Your task to perform on an android device: Add "razer naga" to the cart on ebay, then select checkout. Image 0: 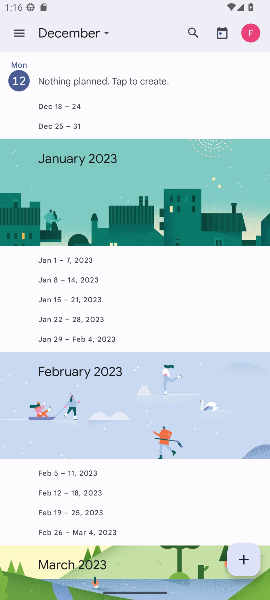
Step 0: press home button
Your task to perform on an android device: Add "razer naga" to the cart on ebay, then select checkout. Image 1: 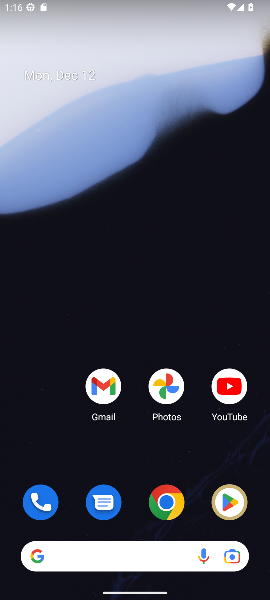
Step 1: click (172, 507)
Your task to perform on an android device: Add "razer naga" to the cart on ebay, then select checkout. Image 2: 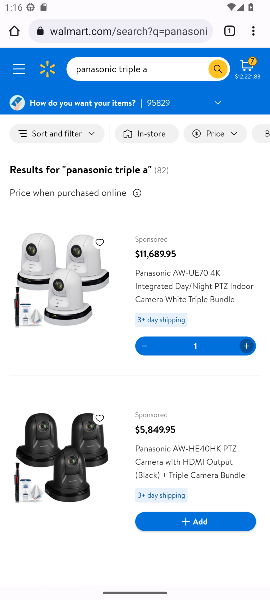
Step 2: click (150, 28)
Your task to perform on an android device: Add "razer naga" to the cart on ebay, then select checkout. Image 3: 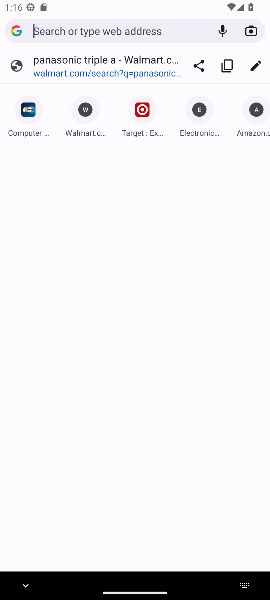
Step 3: type "ebay"
Your task to perform on an android device: Add "razer naga" to the cart on ebay, then select checkout. Image 4: 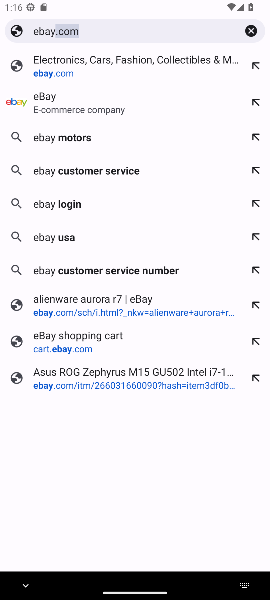
Step 4: click (79, 66)
Your task to perform on an android device: Add "razer naga" to the cart on ebay, then select checkout. Image 5: 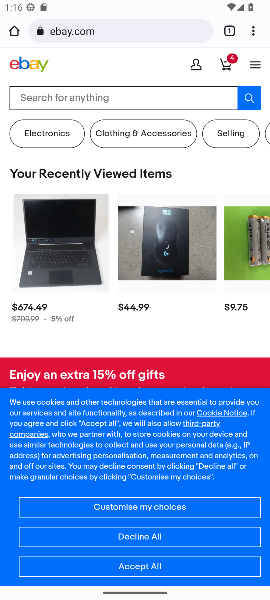
Step 5: click (173, 102)
Your task to perform on an android device: Add "razer naga" to the cart on ebay, then select checkout. Image 6: 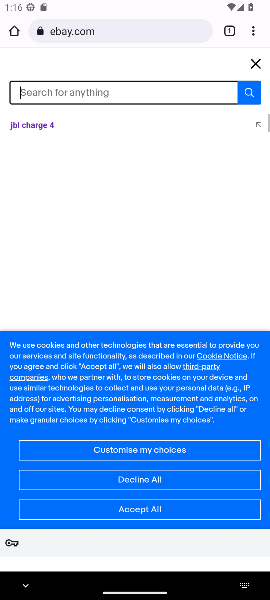
Step 6: type "razer naga"
Your task to perform on an android device: Add "razer naga" to the cart on ebay, then select checkout. Image 7: 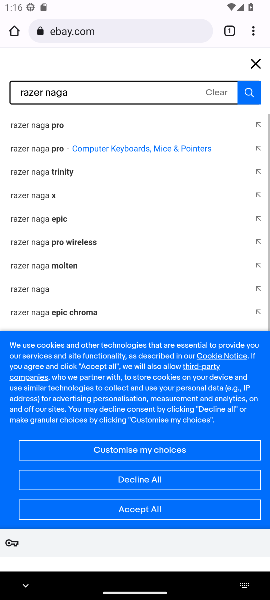
Step 7: click (251, 90)
Your task to perform on an android device: Add "razer naga" to the cart on ebay, then select checkout. Image 8: 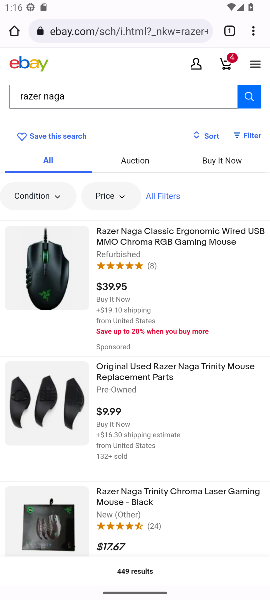
Step 8: click (141, 245)
Your task to perform on an android device: Add "razer naga" to the cart on ebay, then select checkout. Image 9: 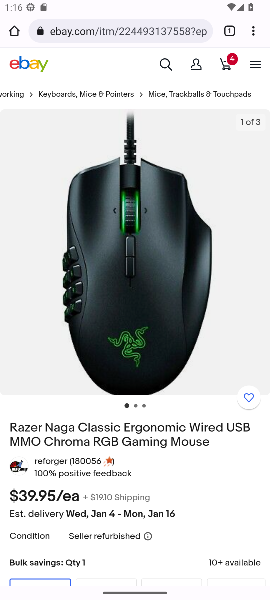
Step 9: drag from (150, 457) to (156, 287)
Your task to perform on an android device: Add "razer naga" to the cart on ebay, then select checkout. Image 10: 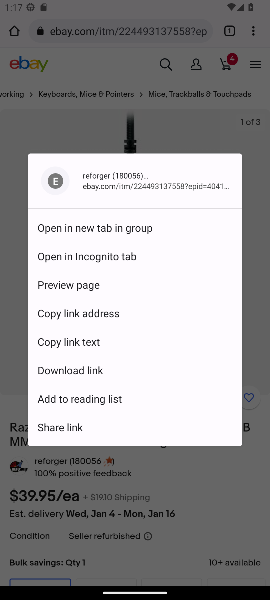
Step 10: click (182, 475)
Your task to perform on an android device: Add "razer naga" to the cart on ebay, then select checkout. Image 11: 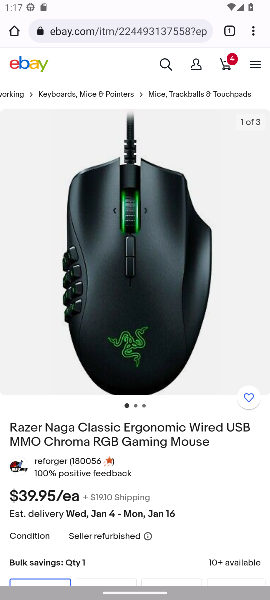
Step 11: drag from (182, 475) to (176, 271)
Your task to perform on an android device: Add "razer naga" to the cart on ebay, then select checkout. Image 12: 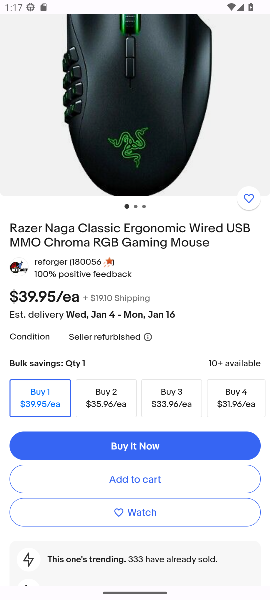
Step 12: click (163, 481)
Your task to perform on an android device: Add "razer naga" to the cart on ebay, then select checkout. Image 13: 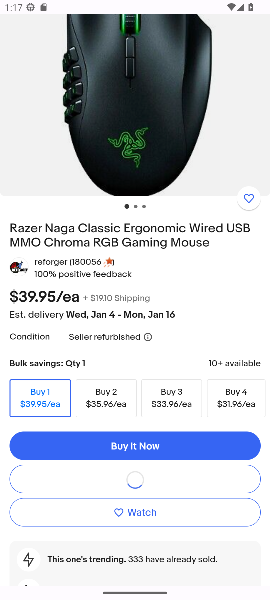
Step 13: task complete